Your task to perform on an android device: Search for seafood restaurants on Google Maps Image 0: 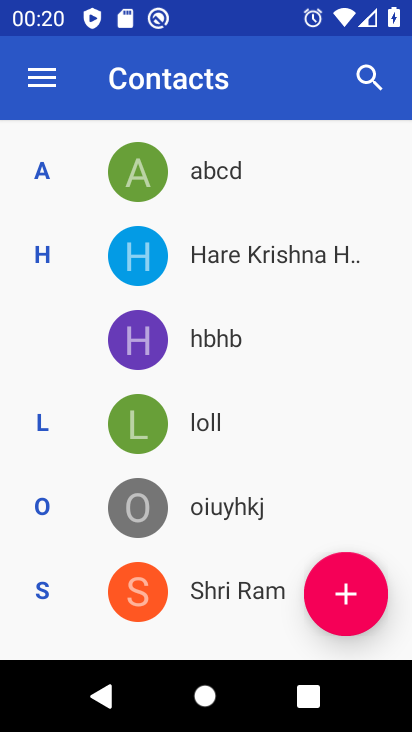
Step 0: press home button
Your task to perform on an android device: Search for seafood restaurants on Google Maps Image 1: 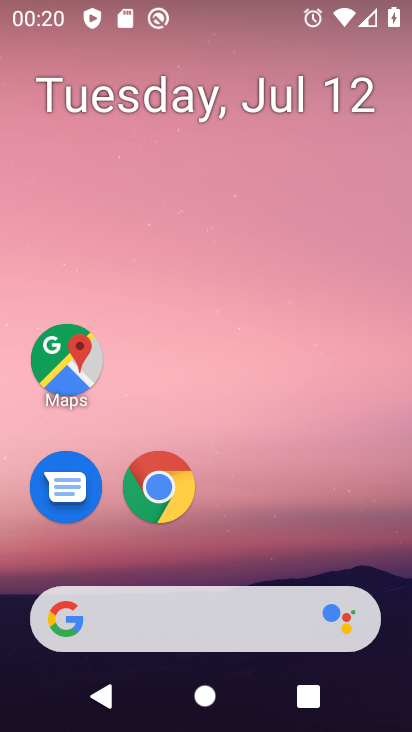
Step 1: drag from (357, 504) to (352, 122)
Your task to perform on an android device: Search for seafood restaurants on Google Maps Image 2: 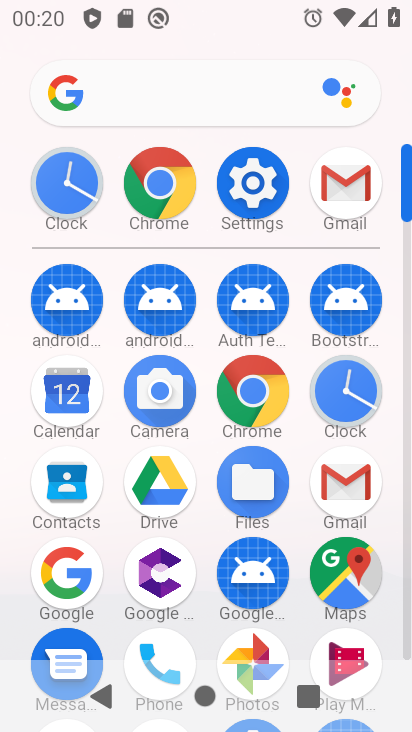
Step 2: click (356, 579)
Your task to perform on an android device: Search for seafood restaurants on Google Maps Image 3: 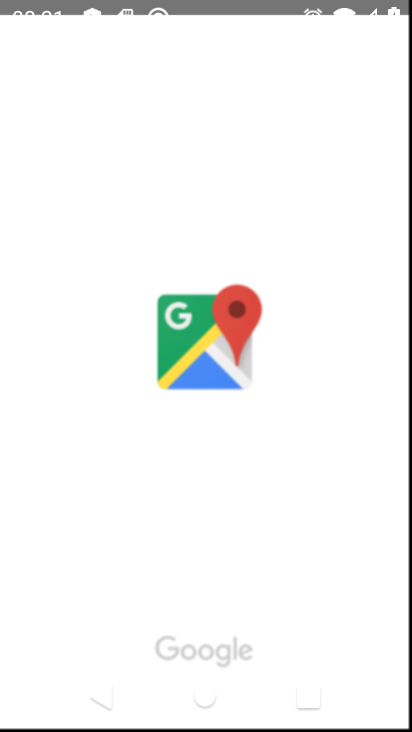
Step 3: task complete